Your task to perform on an android device: Go to display settings Image 0: 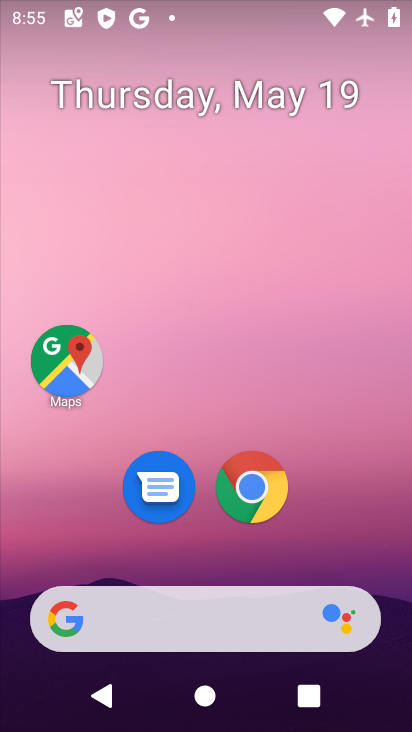
Step 0: drag from (228, 576) to (164, 6)
Your task to perform on an android device: Go to display settings Image 1: 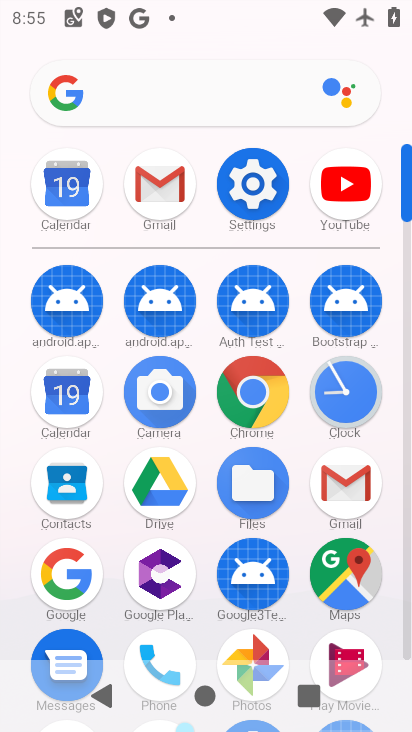
Step 1: click (243, 213)
Your task to perform on an android device: Go to display settings Image 2: 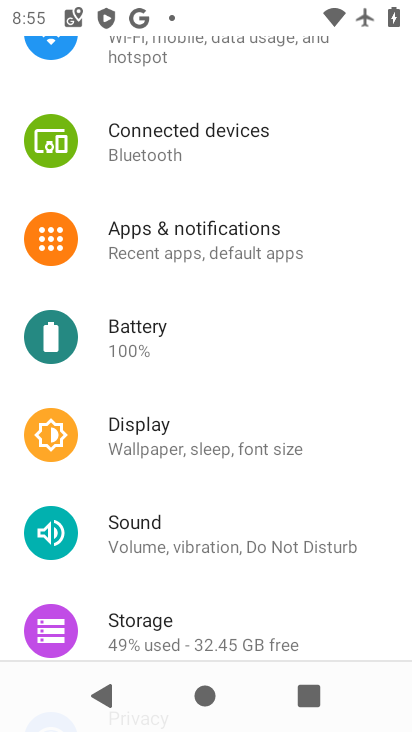
Step 2: click (141, 465)
Your task to perform on an android device: Go to display settings Image 3: 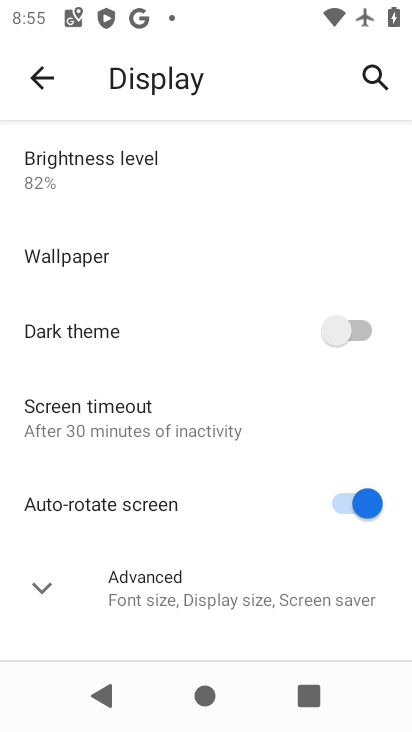
Step 3: click (168, 585)
Your task to perform on an android device: Go to display settings Image 4: 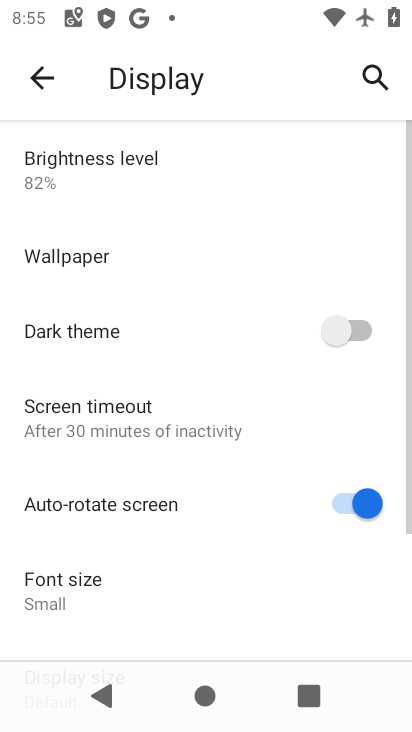
Step 4: task complete